Your task to perform on an android device: turn notification dots on Image 0: 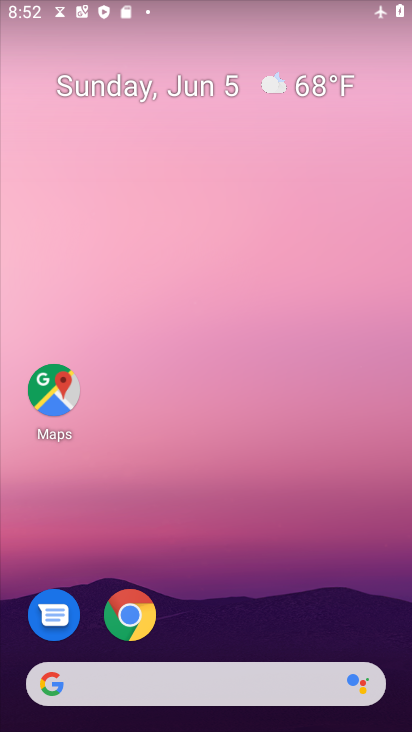
Step 0: drag from (192, 667) to (260, 19)
Your task to perform on an android device: turn notification dots on Image 1: 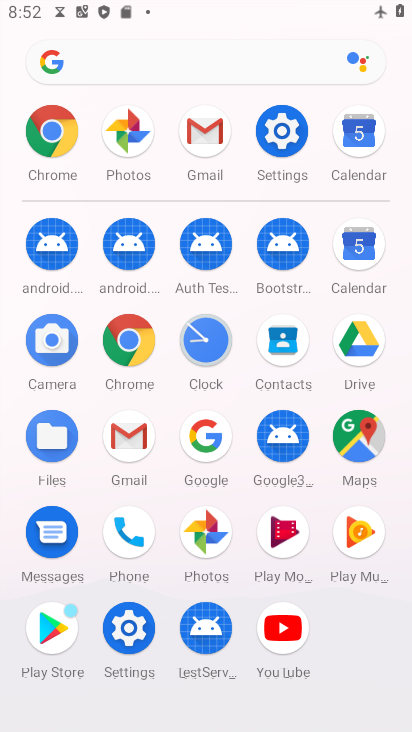
Step 1: click (287, 129)
Your task to perform on an android device: turn notification dots on Image 2: 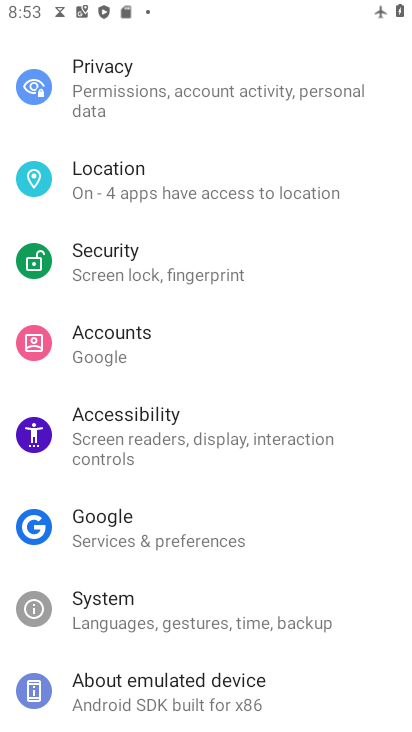
Step 2: drag from (103, 160) to (94, 567)
Your task to perform on an android device: turn notification dots on Image 3: 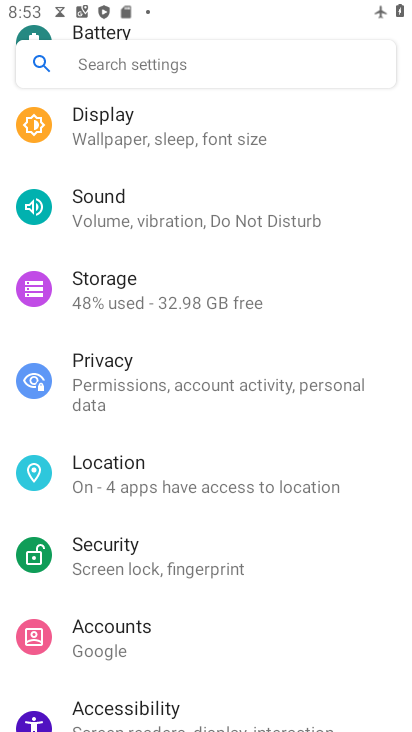
Step 3: drag from (137, 181) to (152, 518)
Your task to perform on an android device: turn notification dots on Image 4: 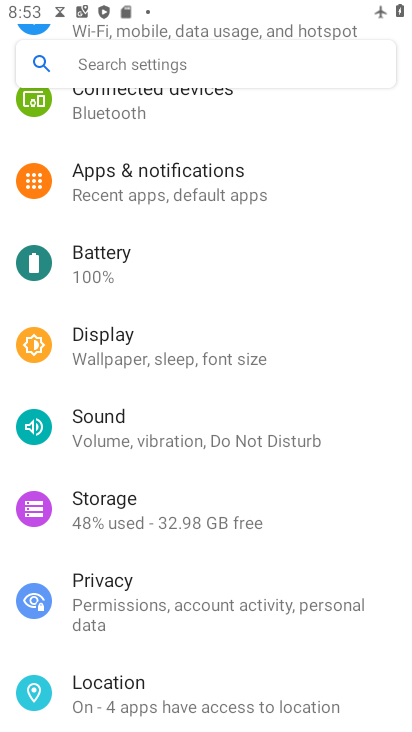
Step 4: click (181, 159)
Your task to perform on an android device: turn notification dots on Image 5: 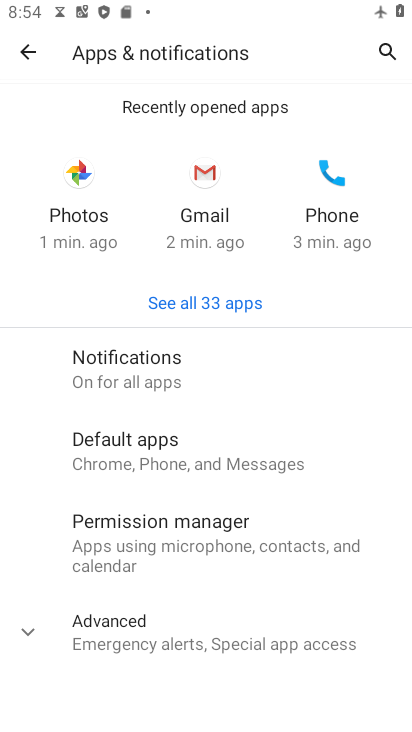
Step 5: click (83, 362)
Your task to perform on an android device: turn notification dots on Image 6: 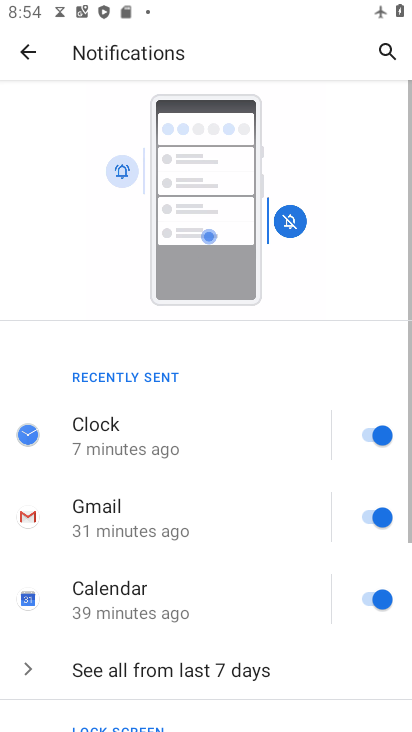
Step 6: drag from (200, 643) to (78, 66)
Your task to perform on an android device: turn notification dots on Image 7: 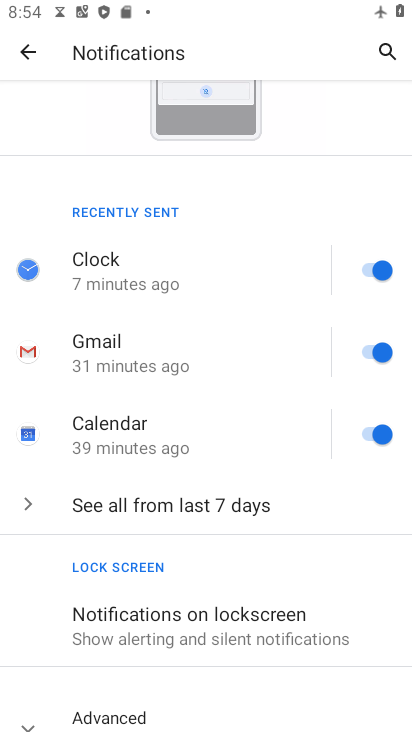
Step 7: drag from (193, 650) to (130, 172)
Your task to perform on an android device: turn notification dots on Image 8: 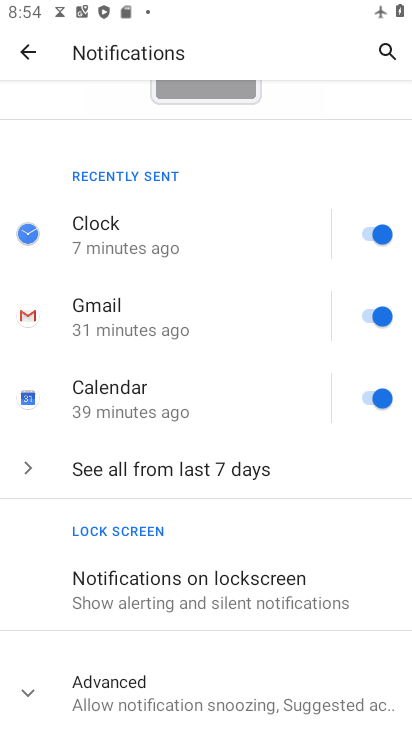
Step 8: click (120, 684)
Your task to perform on an android device: turn notification dots on Image 9: 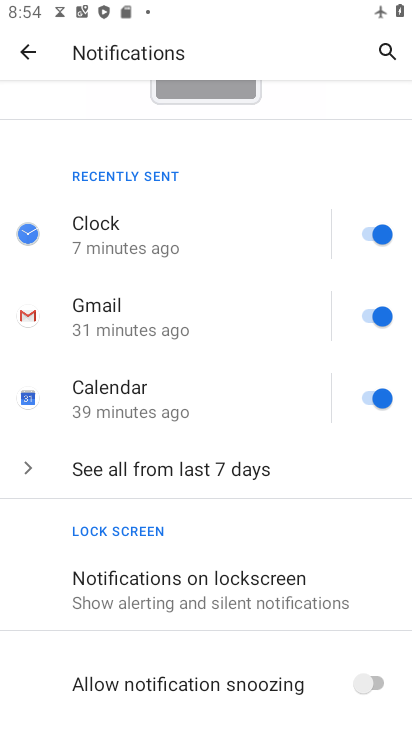
Step 9: task complete